Your task to perform on an android device: toggle sleep mode Image 0: 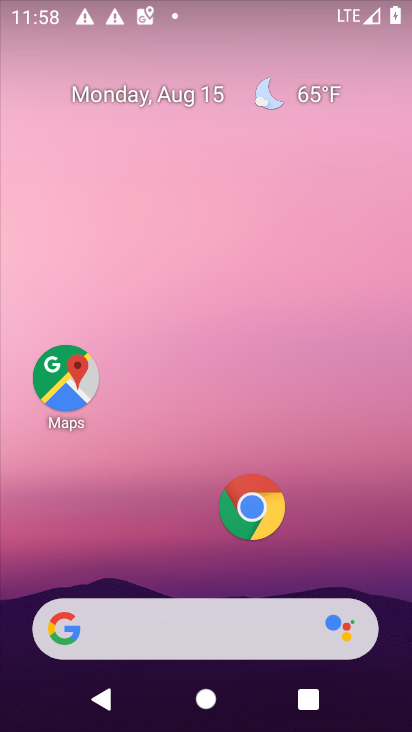
Step 0: drag from (162, 572) to (206, 18)
Your task to perform on an android device: toggle sleep mode Image 1: 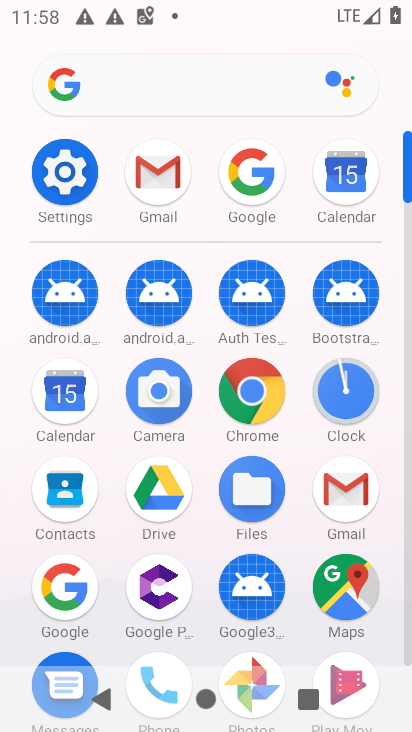
Step 1: click (66, 174)
Your task to perform on an android device: toggle sleep mode Image 2: 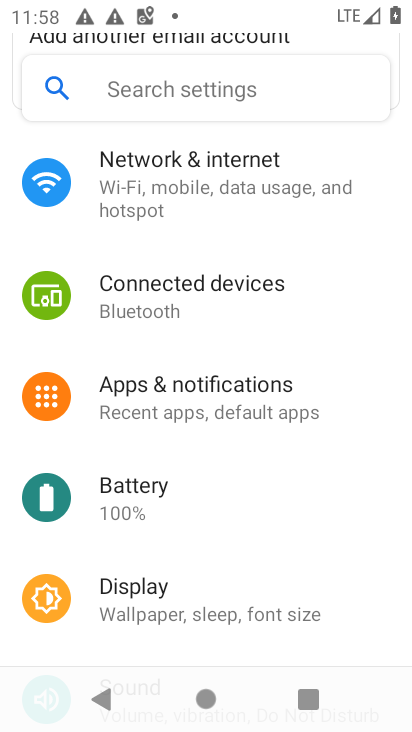
Step 2: drag from (215, 230) to (215, 464)
Your task to perform on an android device: toggle sleep mode Image 3: 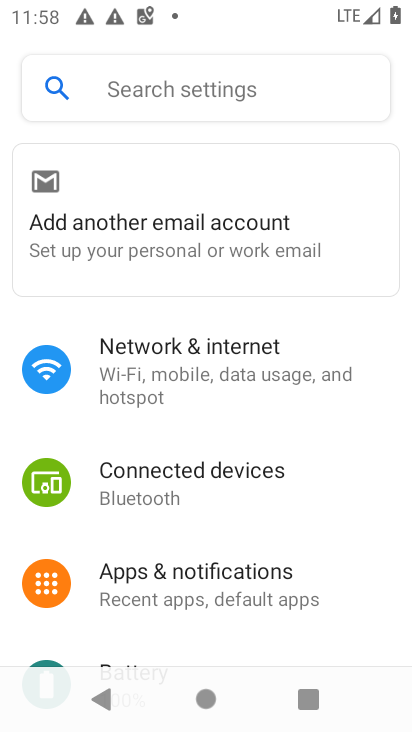
Step 3: drag from (211, 524) to (161, 294)
Your task to perform on an android device: toggle sleep mode Image 4: 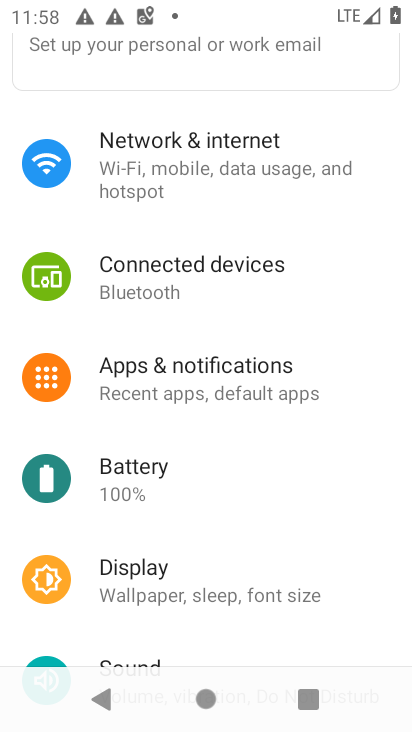
Step 4: drag from (175, 637) to (181, 474)
Your task to perform on an android device: toggle sleep mode Image 5: 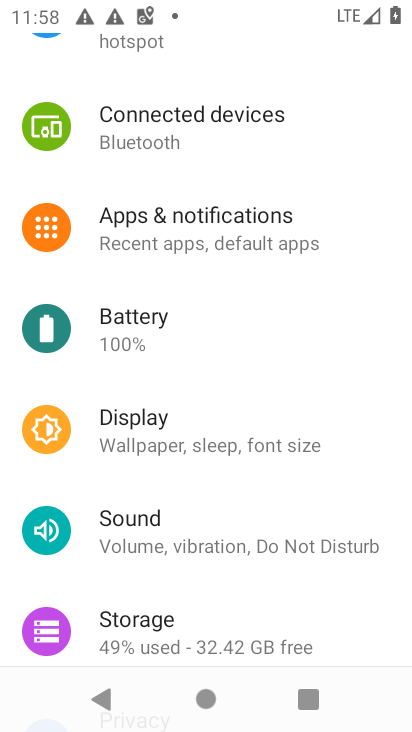
Step 5: click (151, 420)
Your task to perform on an android device: toggle sleep mode Image 6: 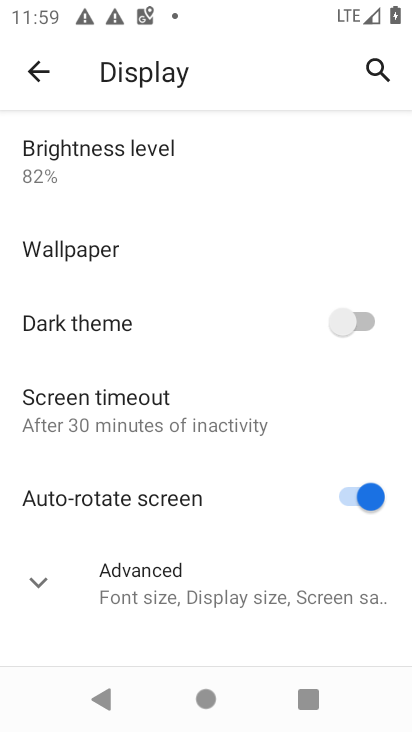
Step 6: task complete